Your task to perform on an android device: Open the map Image 0: 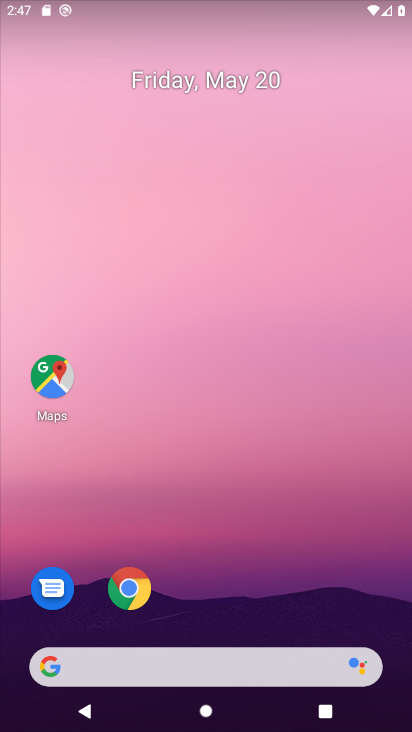
Step 0: click (59, 386)
Your task to perform on an android device: Open the map Image 1: 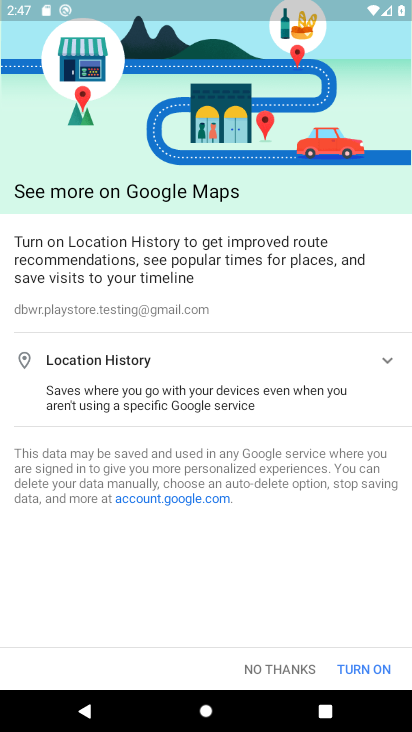
Step 1: click (286, 673)
Your task to perform on an android device: Open the map Image 2: 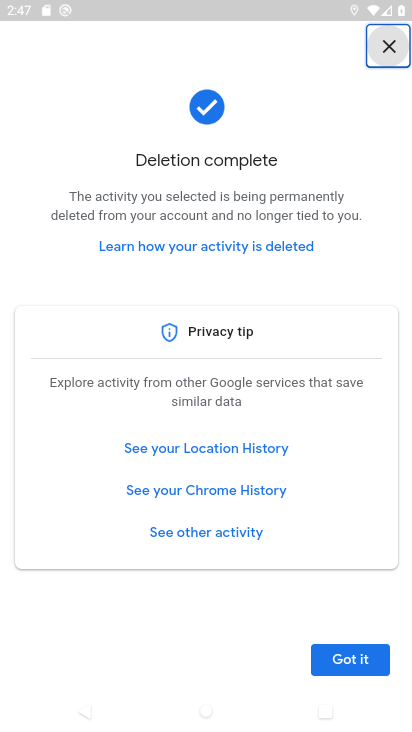
Step 2: click (349, 665)
Your task to perform on an android device: Open the map Image 3: 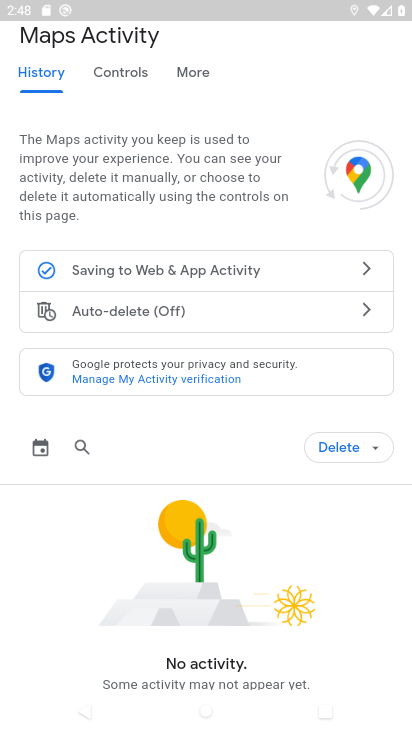
Step 3: task complete